Your task to perform on an android device: Clear the shopping cart on ebay.com. Search for logitech g502 on ebay.com, select the first entry, add it to the cart, then select checkout. Image 0: 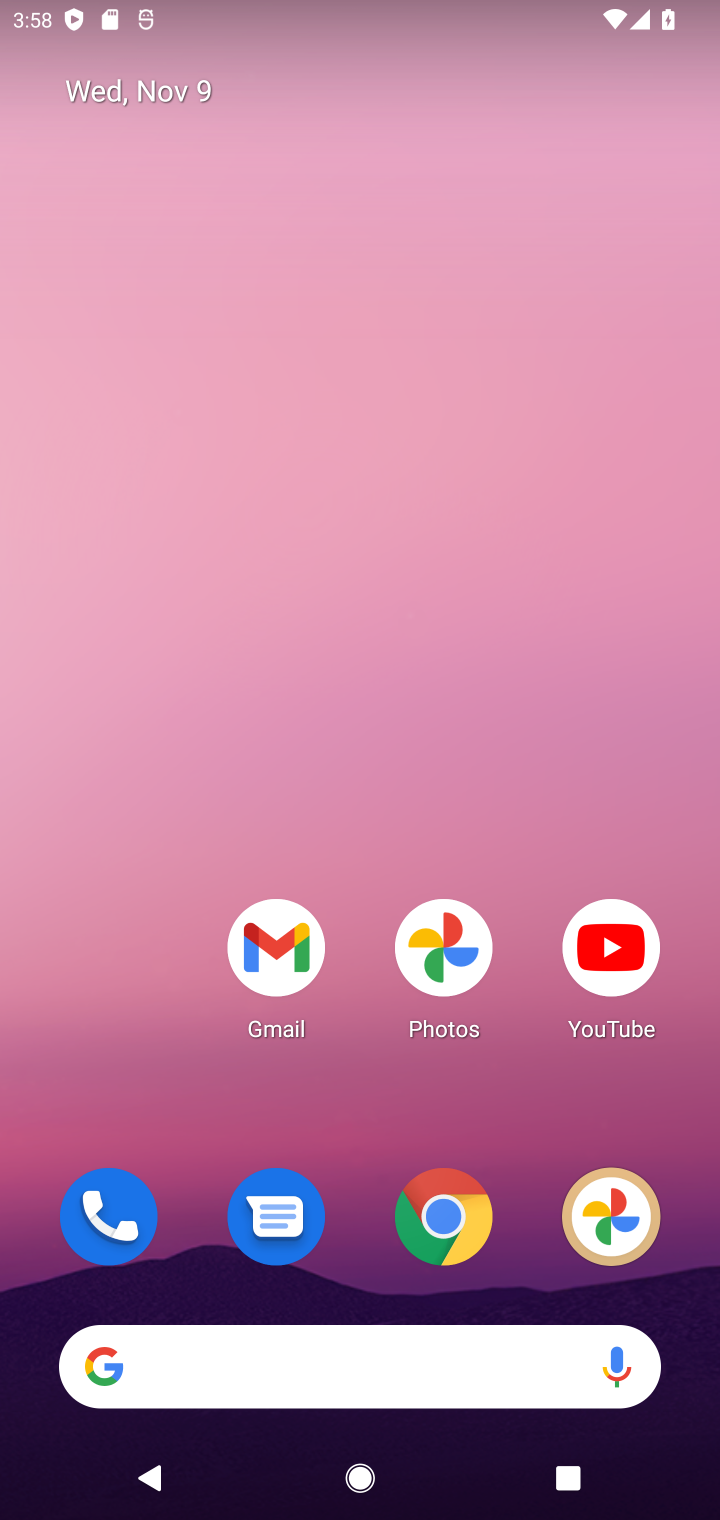
Step 0: drag from (370, 1059) to (439, 225)
Your task to perform on an android device: Clear the shopping cart on ebay.com. Search for logitech g502 on ebay.com, select the first entry, add it to the cart, then select checkout. Image 1: 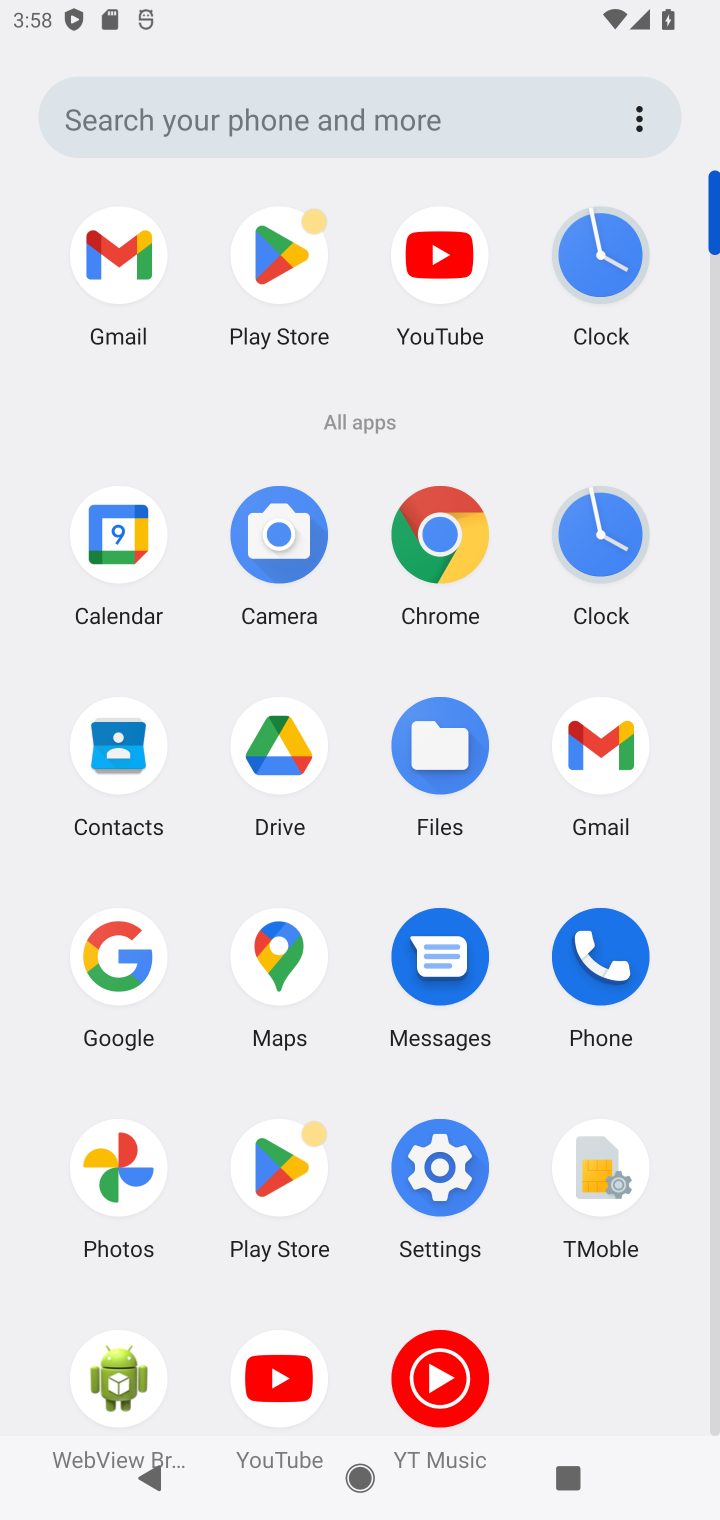
Step 1: click (440, 544)
Your task to perform on an android device: Clear the shopping cart on ebay.com. Search for logitech g502 on ebay.com, select the first entry, add it to the cart, then select checkout. Image 2: 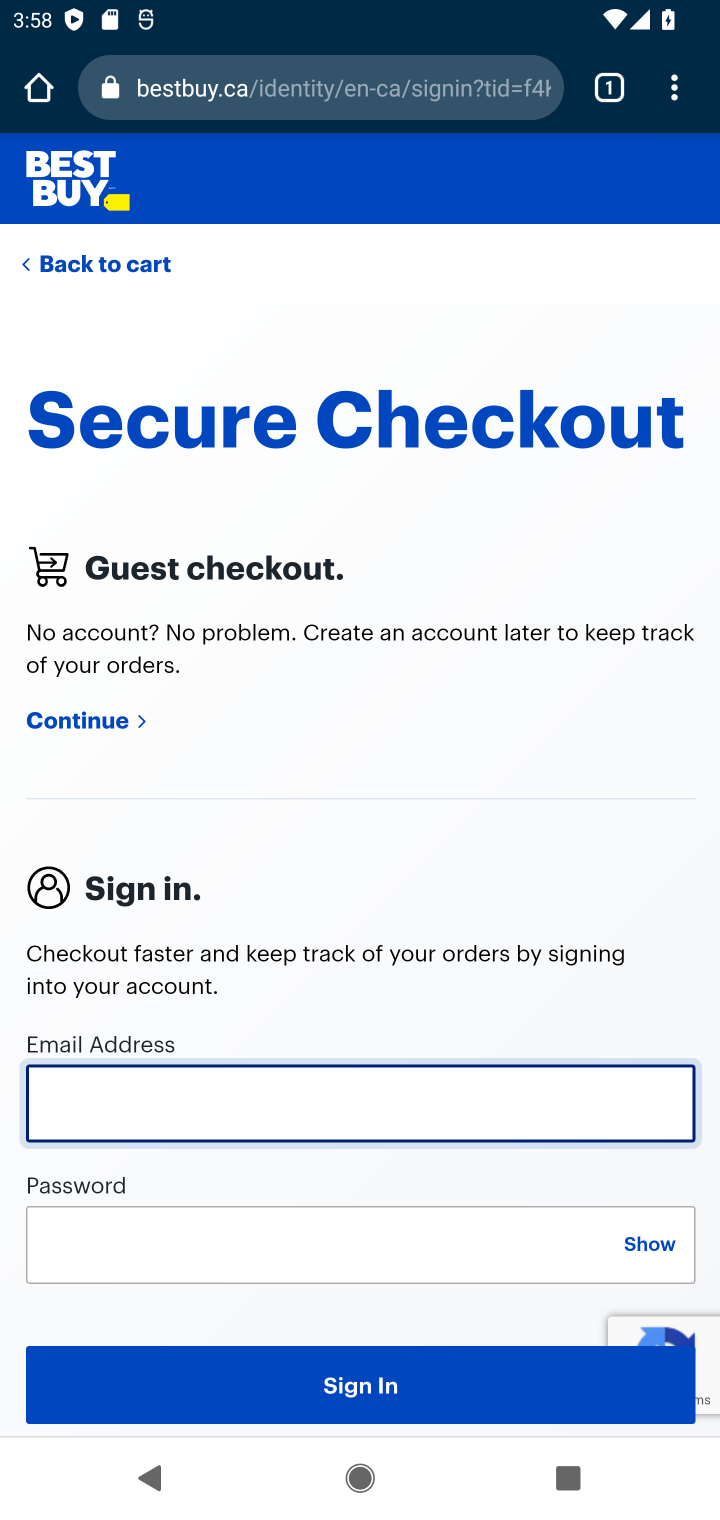
Step 2: click (455, 113)
Your task to perform on an android device: Clear the shopping cart on ebay.com. Search for logitech g502 on ebay.com, select the first entry, add it to the cart, then select checkout. Image 3: 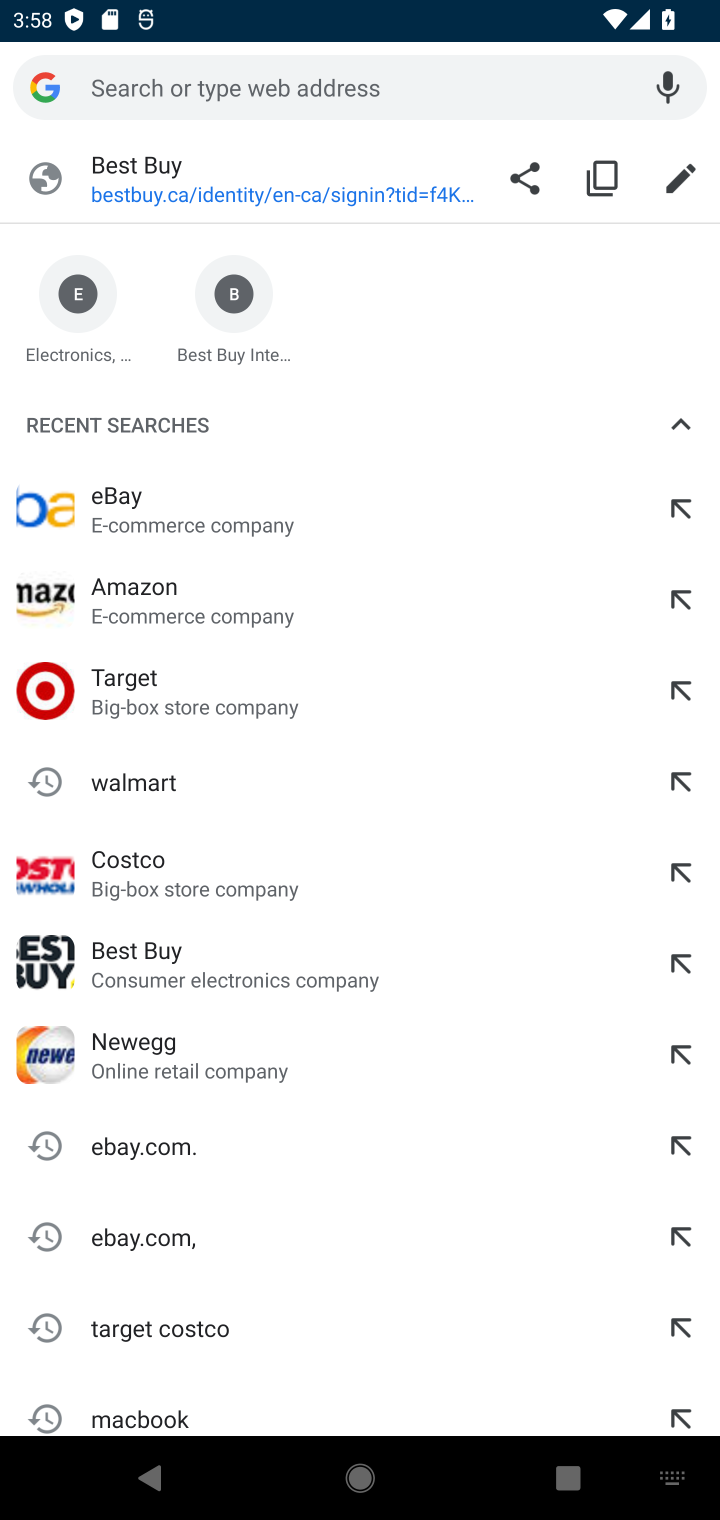
Step 3: type "ebay.com"
Your task to perform on an android device: Clear the shopping cart on ebay.com. Search for logitech g502 on ebay.com, select the first entry, add it to the cart, then select checkout. Image 4: 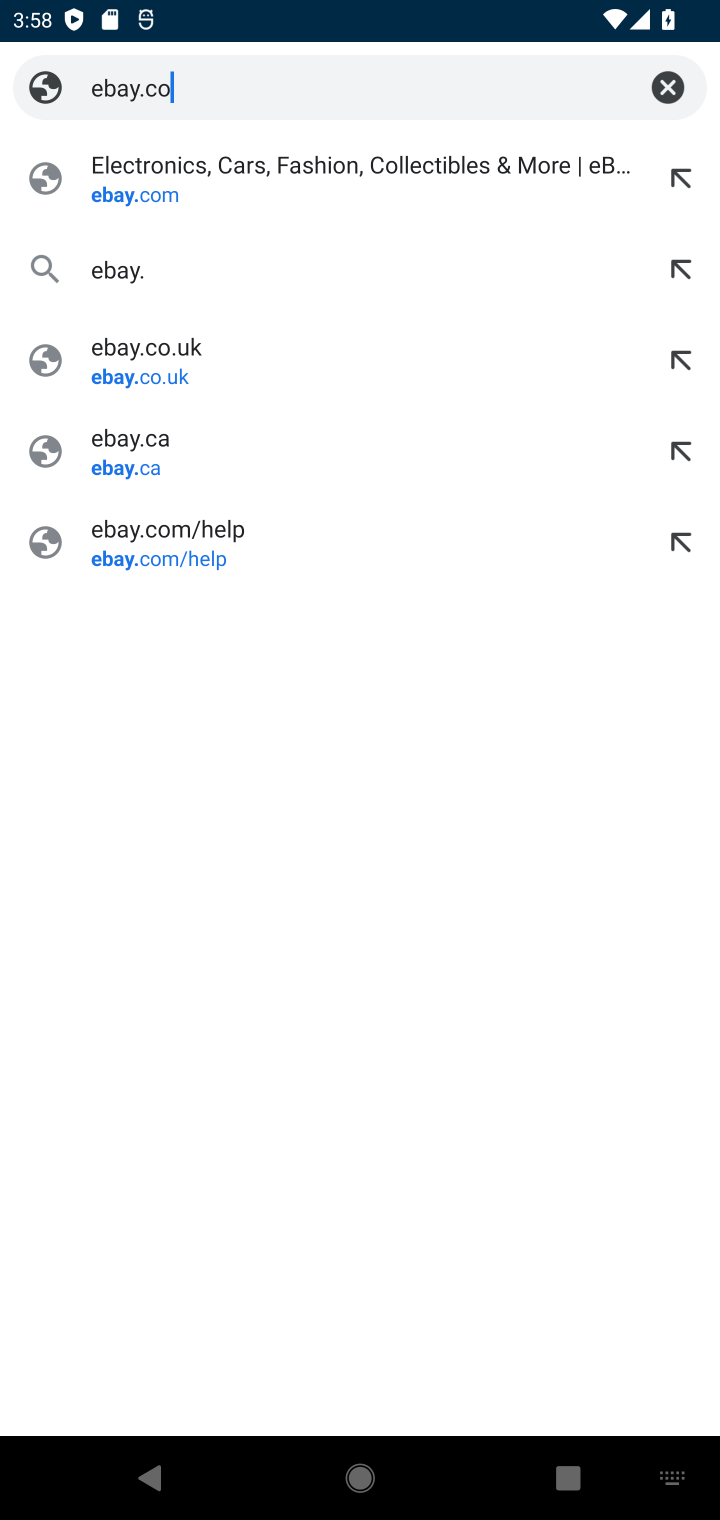
Step 4: press enter
Your task to perform on an android device: Clear the shopping cart on ebay.com. Search for logitech g502 on ebay.com, select the first entry, add it to the cart, then select checkout. Image 5: 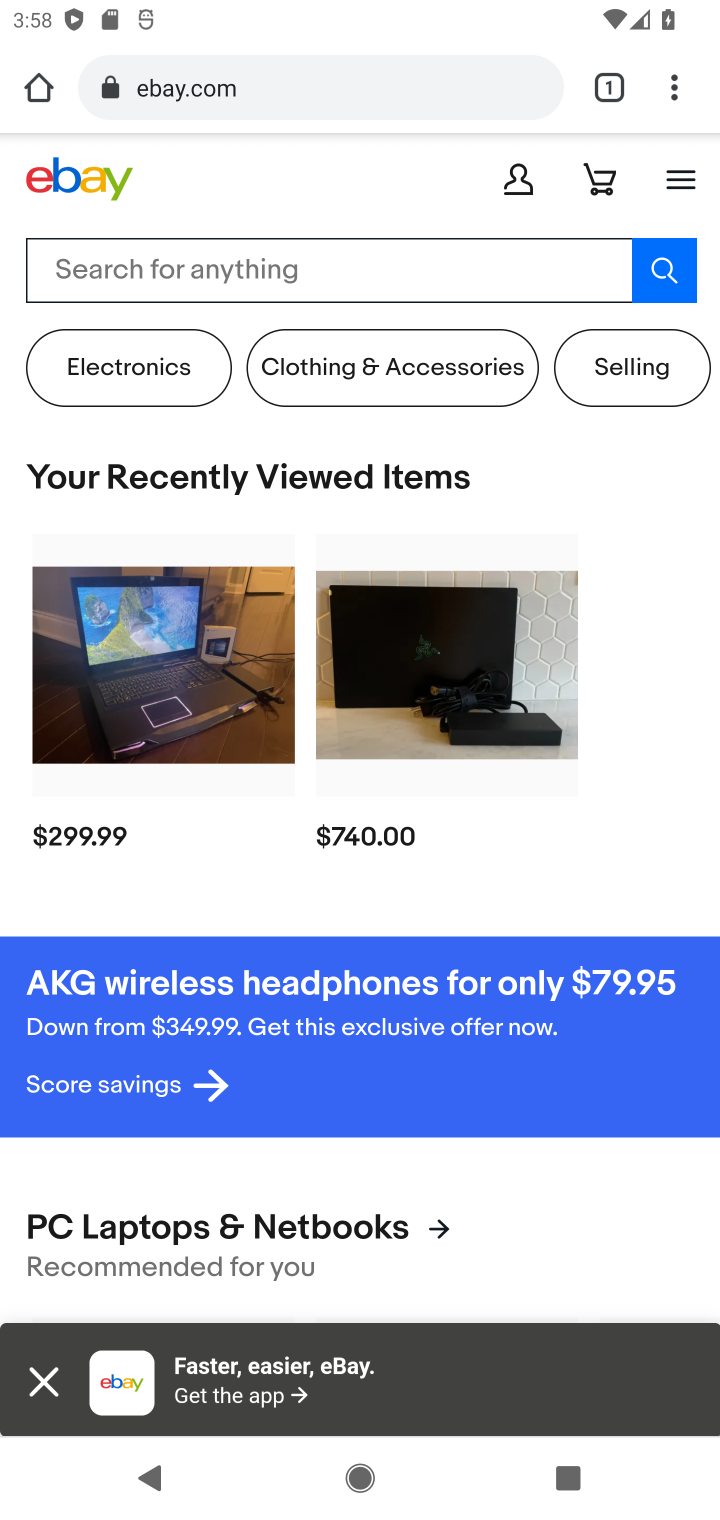
Step 5: click (606, 173)
Your task to perform on an android device: Clear the shopping cart on ebay.com. Search for logitech g502 on ebay.com, select the first entry, add it to the cart, then select checkout. Image 6: 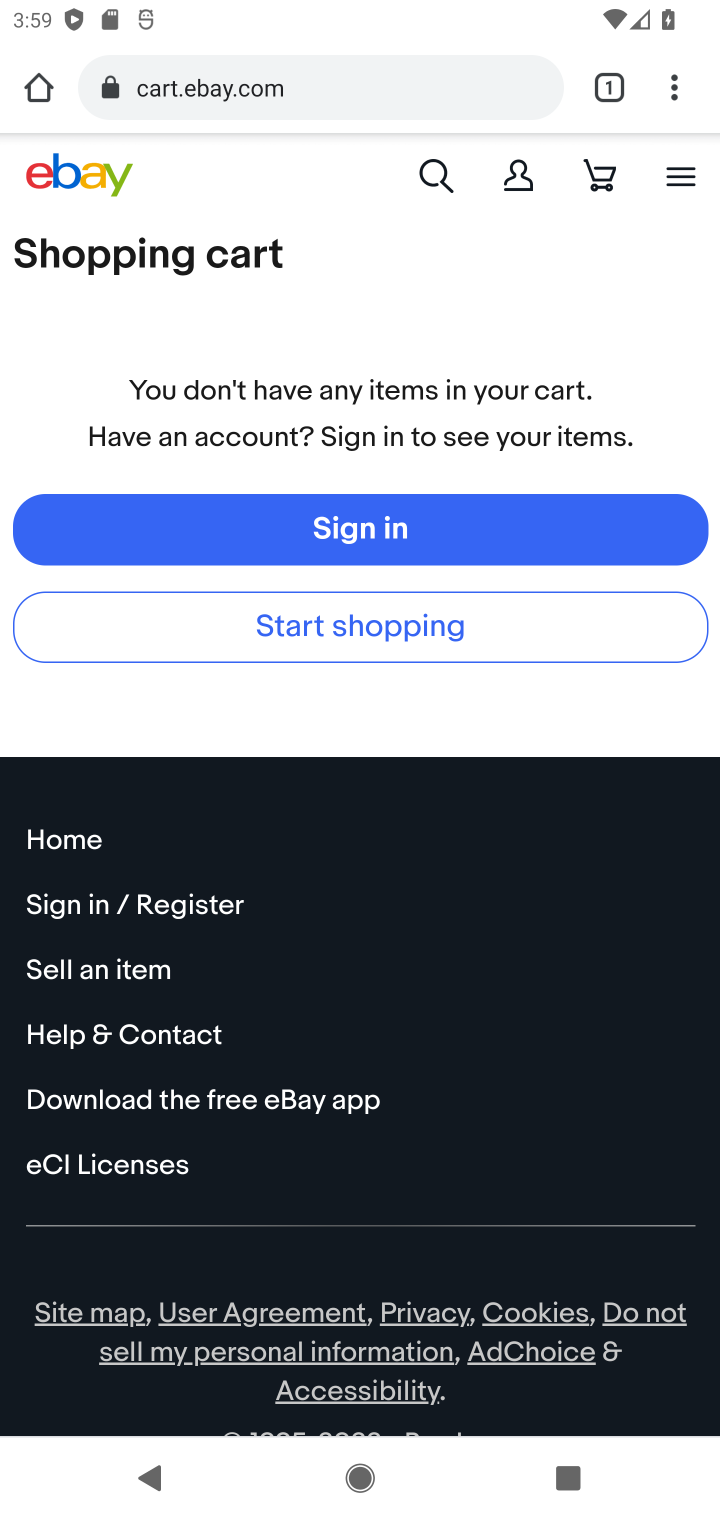
Step 6: click (615, 614)
Your task to perform on an android device: Clear the shopping cart on ebay.com. Search for logitech g502 on ebay.com, select the first entry, add it to the cart, then select checkout. Image 7: 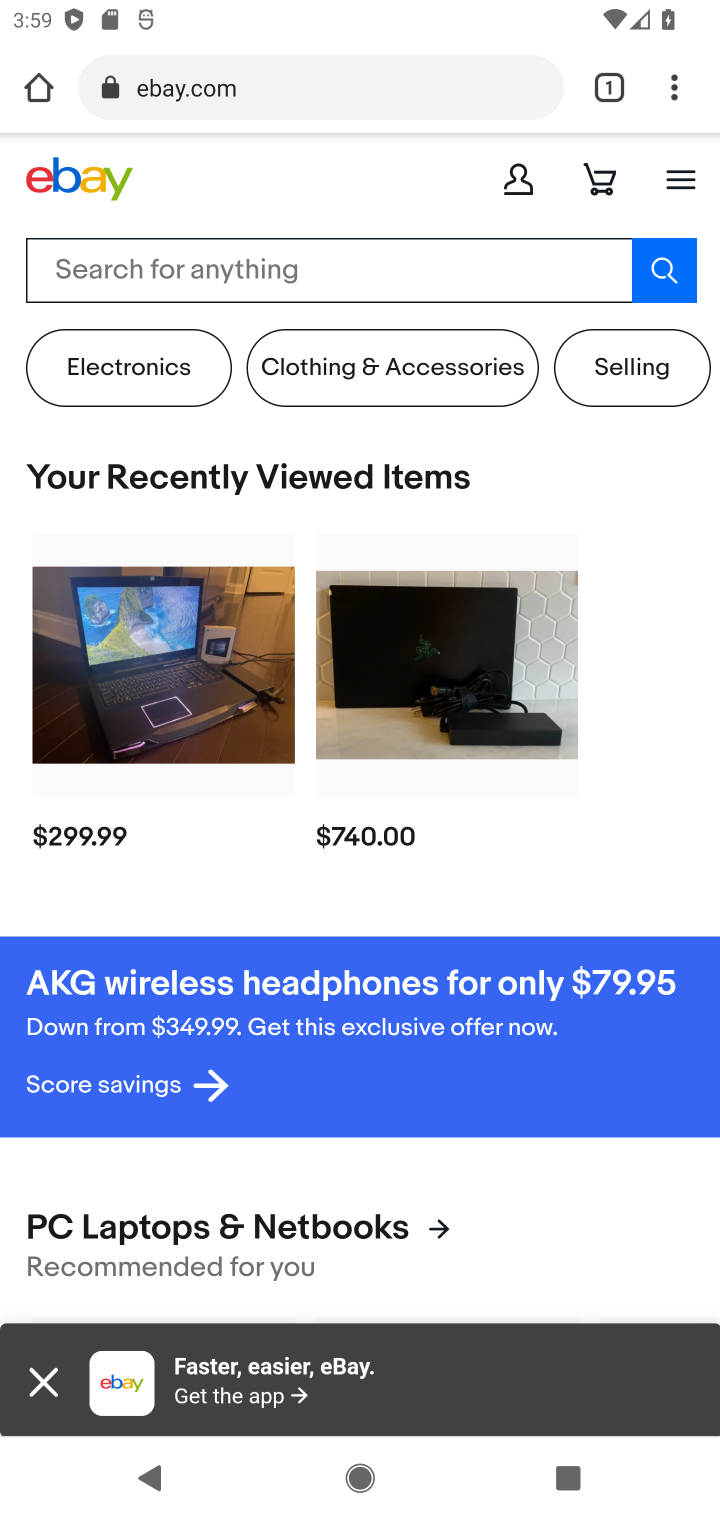
Step 7: click (400, 283)
Your task to perform on an android device: Clear the shopping cart on ebay.com. Search for logitech g502 on ebay.com, select the first entry, add it to the cart, then select checkout. Image 8: 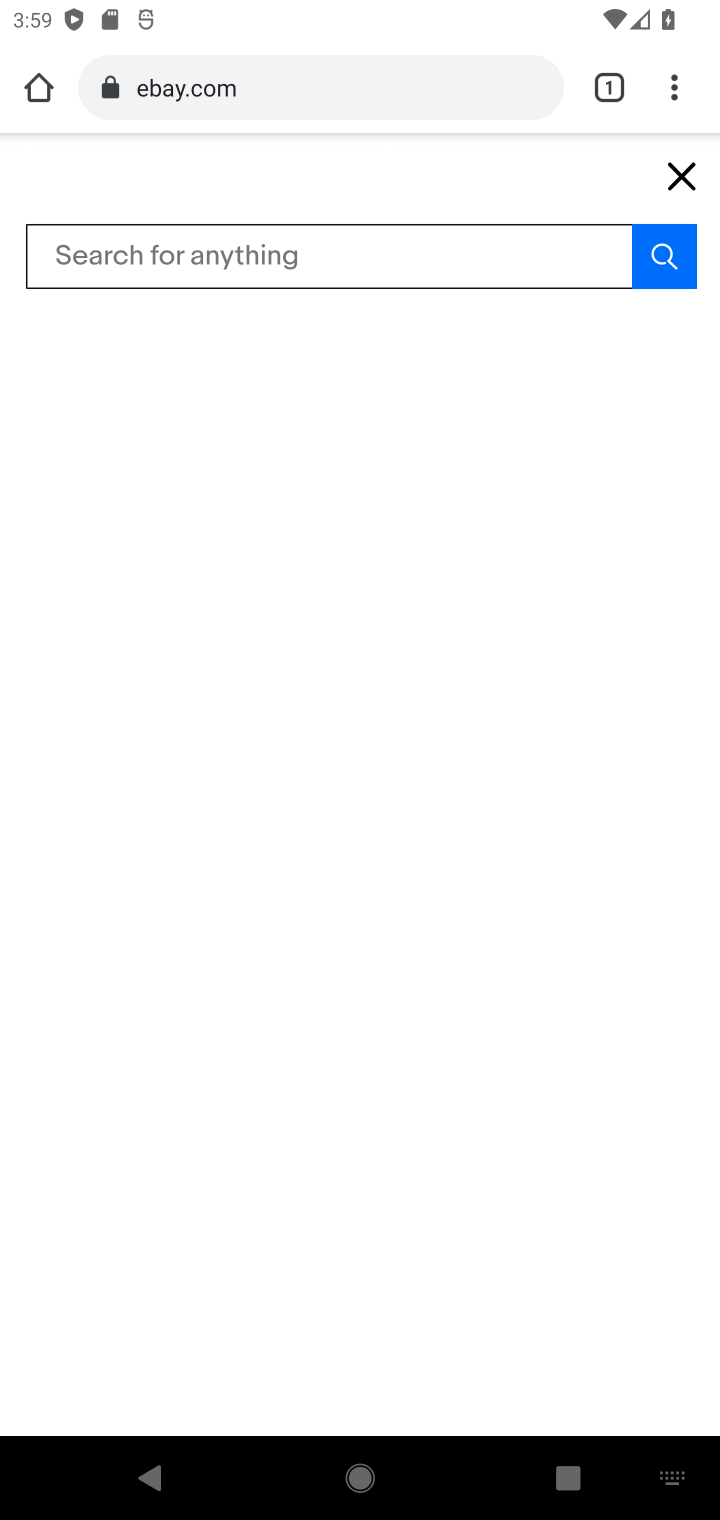
Step 8: type "logitech g502"
Your task to perform on an android device: Clear the shopping cart on ebay.com. Search for logitech g502 on ebay.com, select the first entry, add it to the cart, then select checkout. Image 9: 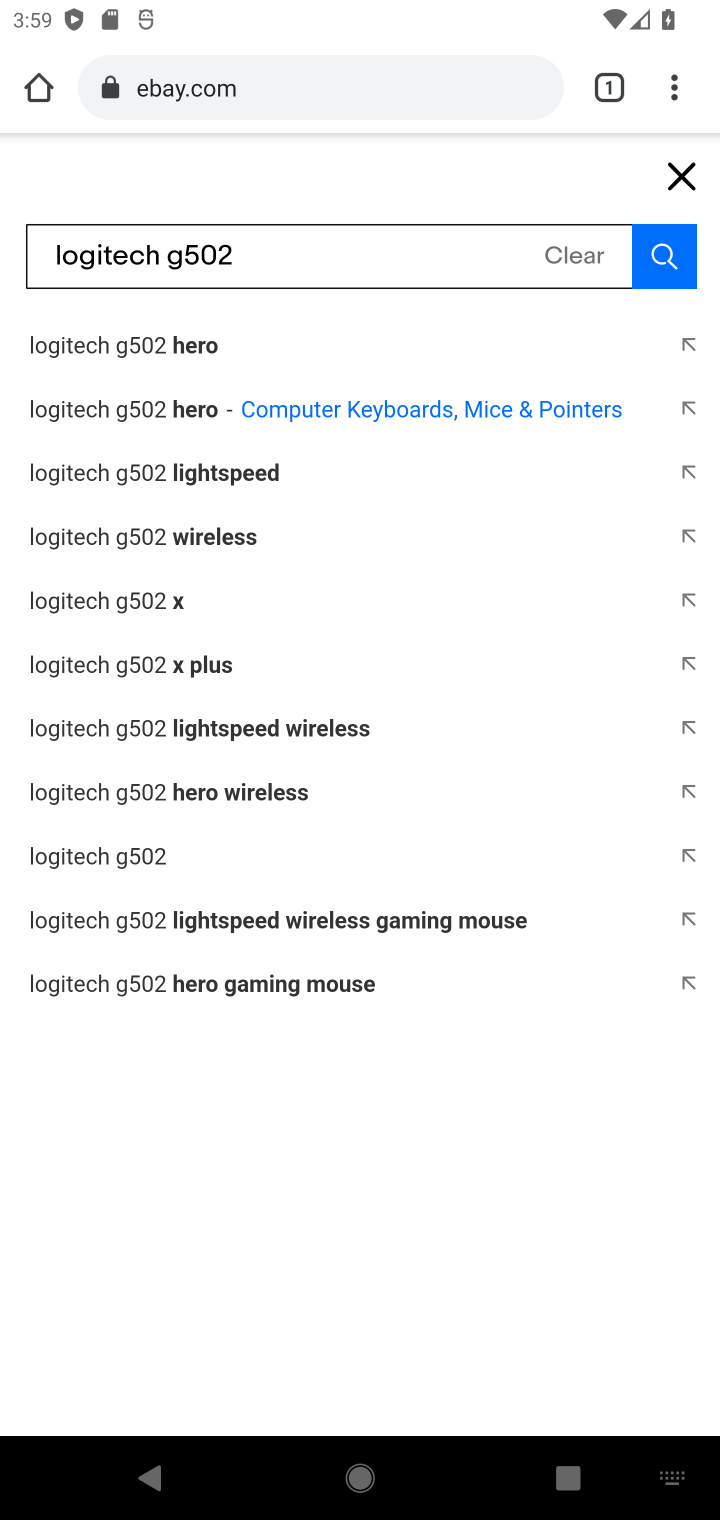
Step 9: press enter
Your task to perform on an android device: Clear the shopping cart on ebay.com. Search for logitech g502 on ebay.com, select the first entry, add it to the cart, then select checkout. Image 10: 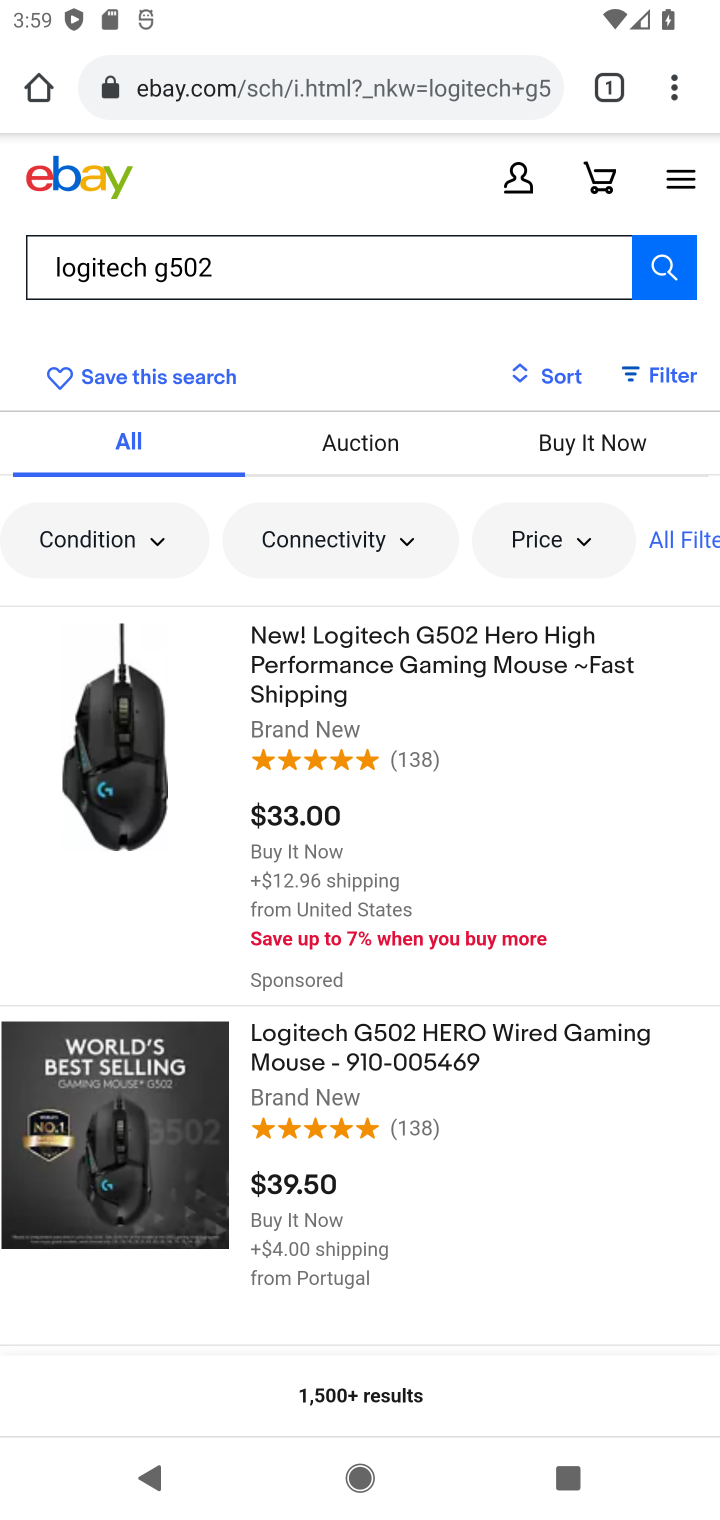
Step 10: click (383, 680)
Your task to perform on an android device: Clear the shopping cart on ebay.com. Search for logitech g502 on ebay.com, select the first entry, add it to the cart, then select checkout. Image 11: 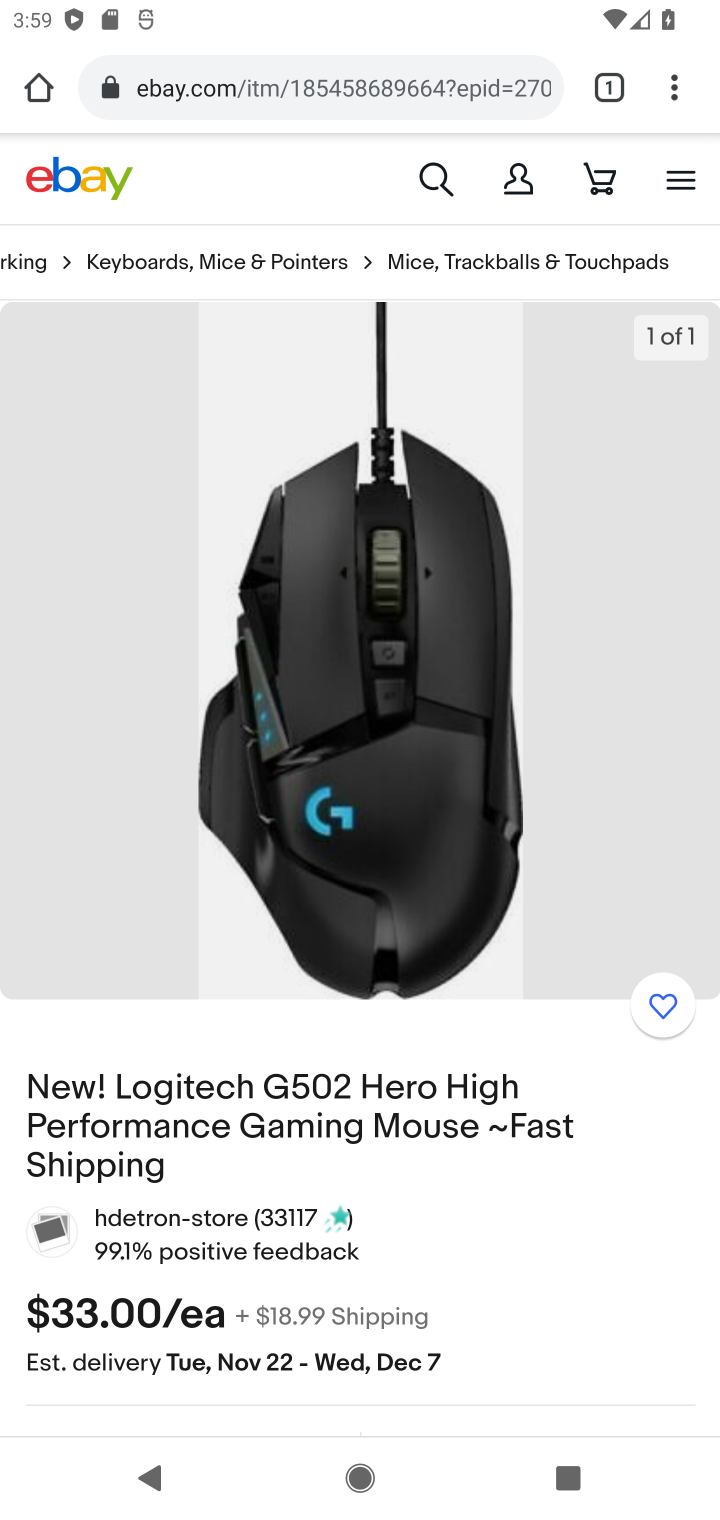
Step 11: drag from (329, 1229) to (308, 382)
Your task to perform on an android device: Clear the shopping cart on ebay.com. Search for logitech g502 on ebay.com, select the first entry, add it to the cart, then select checkout. Image 12: 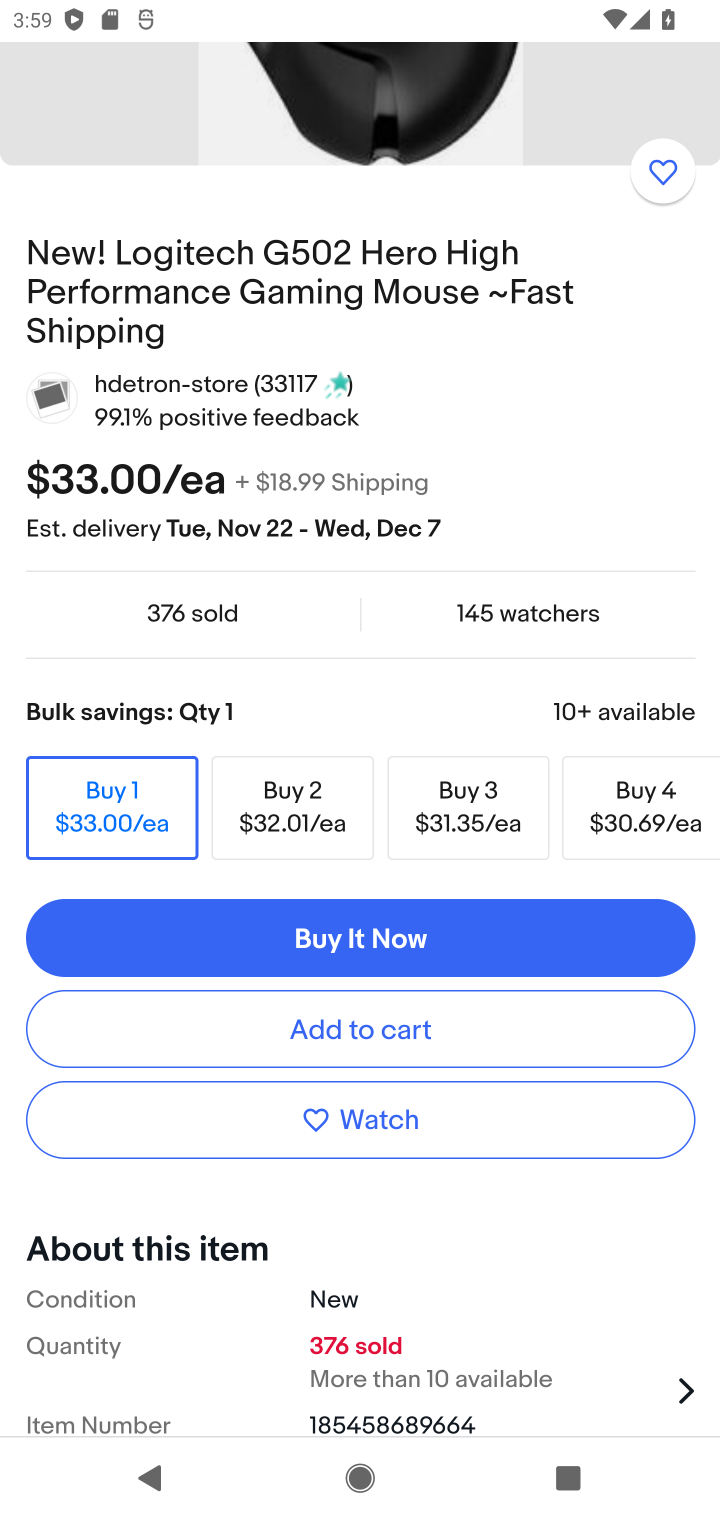
Step 12: click (433, 1028)
Your task to perform on an android device: Clear the shopping cart on ebay.com. Search for logitech g502 on ebay.com, select the first entry, add it to the cart, then select checkout. Image 13: 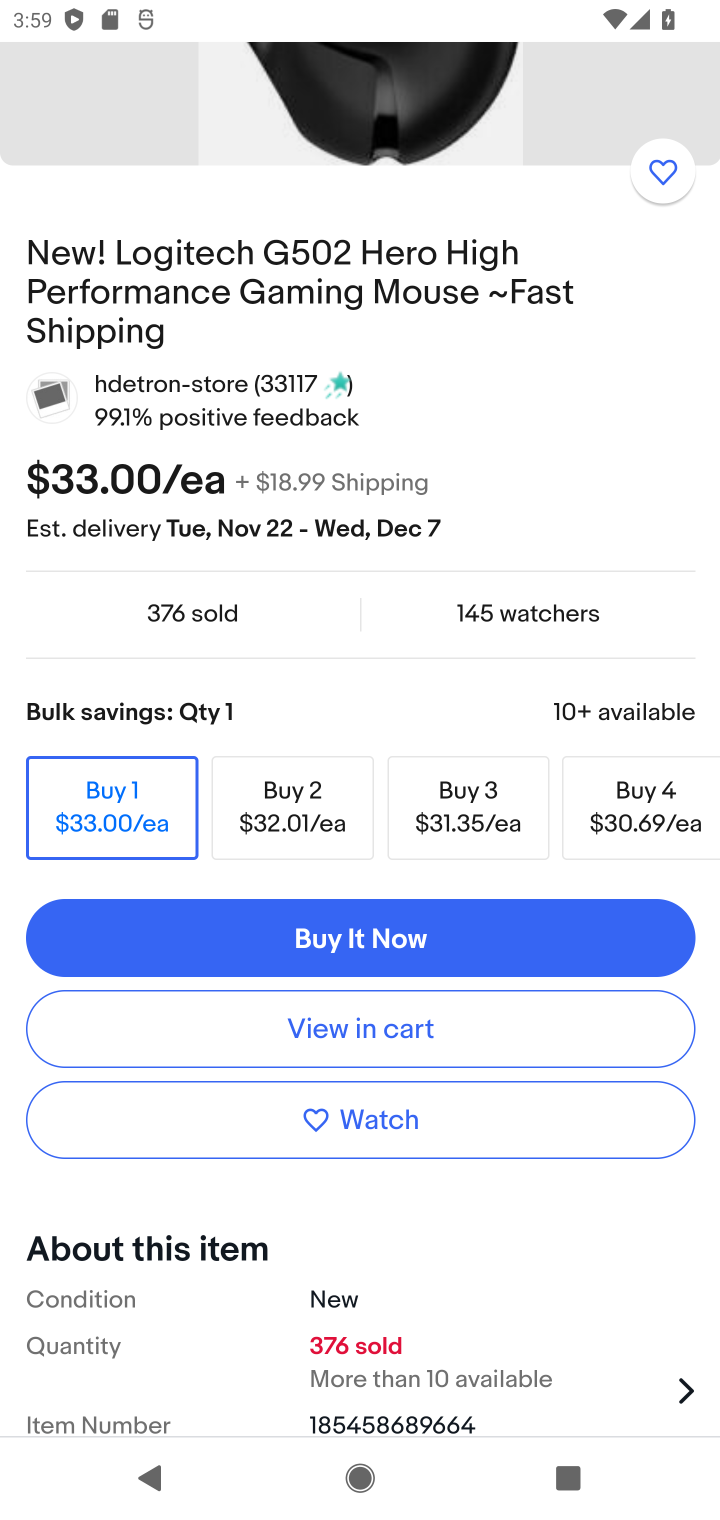
Step 13: click (422, 1028)
Your task to perform on an android device: Clear the shopping cart on ebay.com. Search for logitech g502 on ebay.com, select the first entry, add it to the cart, then select checkout. Image 14: 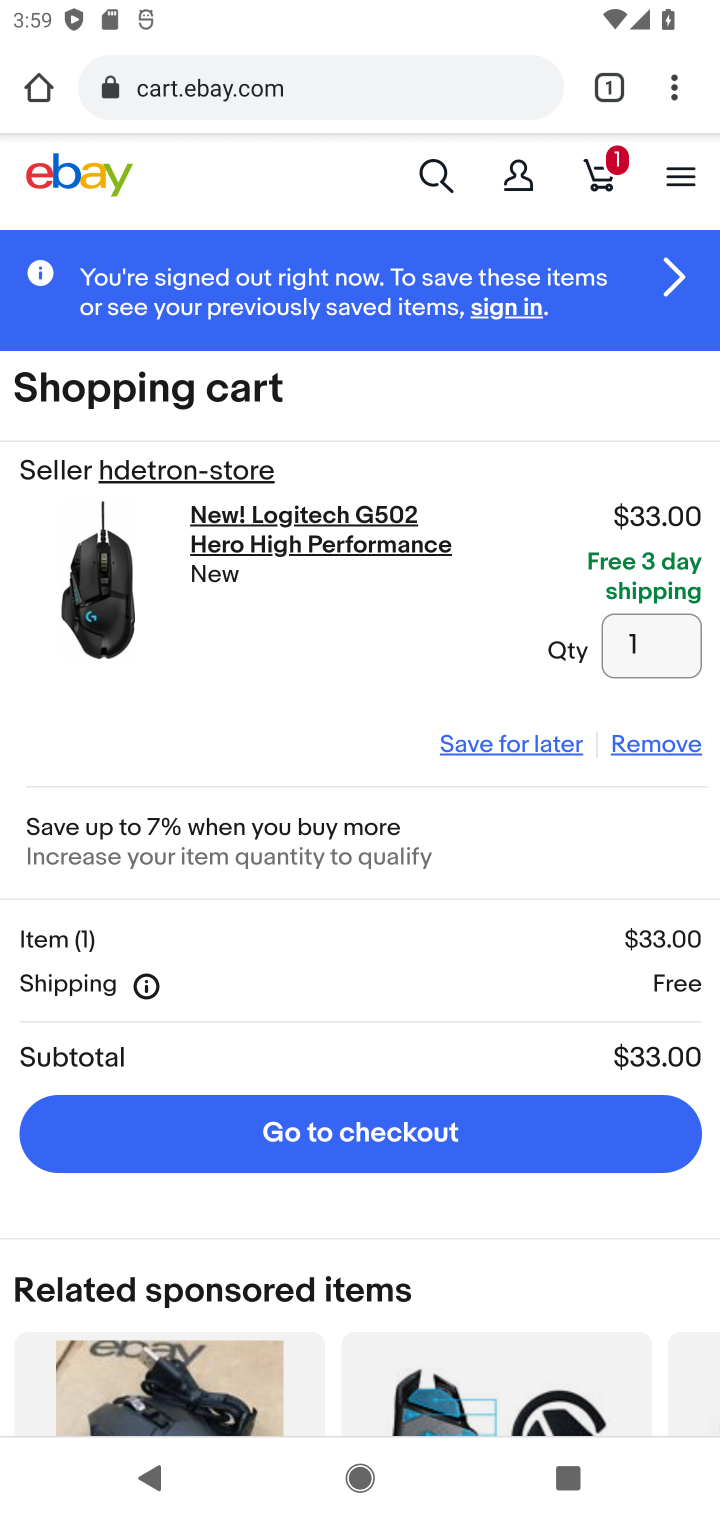
Step 14: click (442, 1132)
Your task to perform on an android device: Clear the shopping cart on ebay.com. Search for logitech g502 on ebay.com, select the first entry, add it to the cart, then select checkout. Image 15: 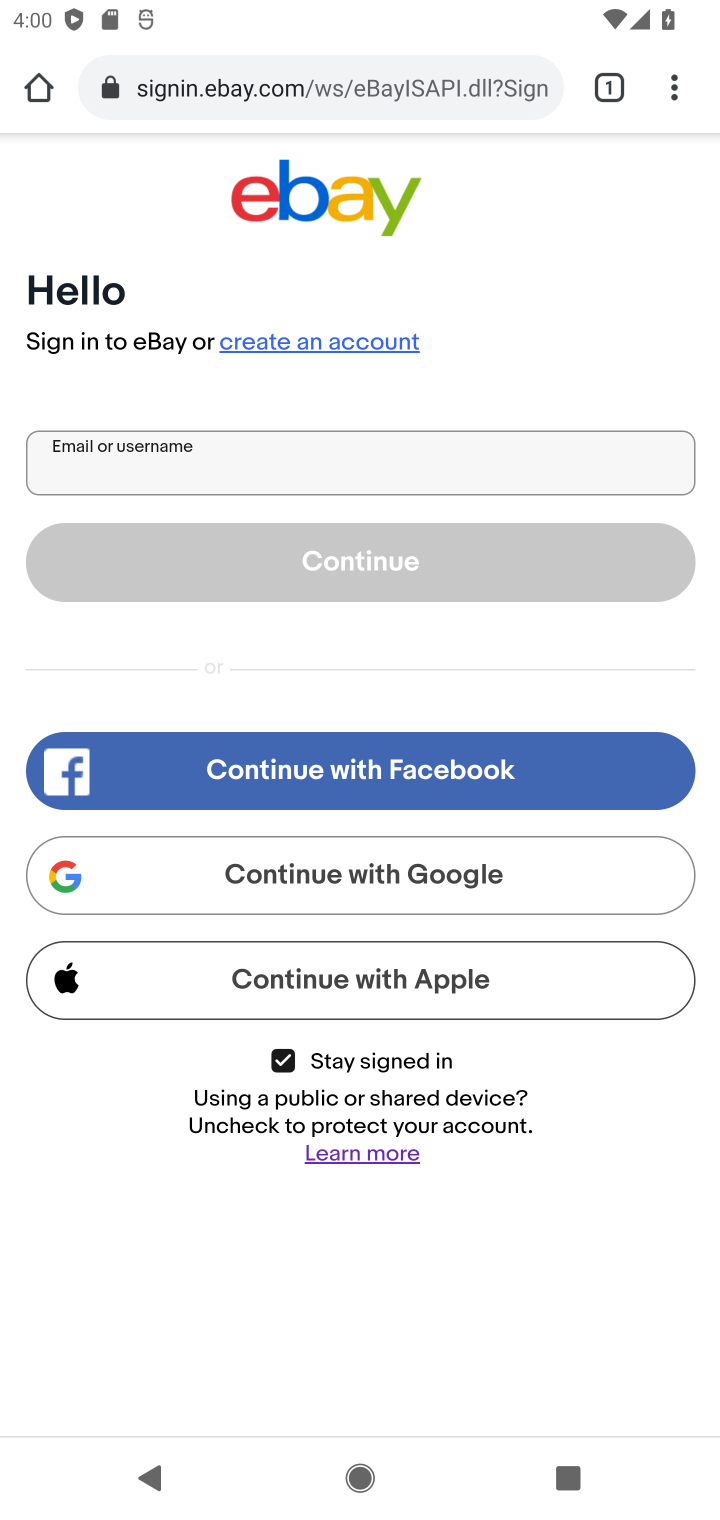
Step 15: task complete